Your task to perform on an android device: change notifications settings Image 0: 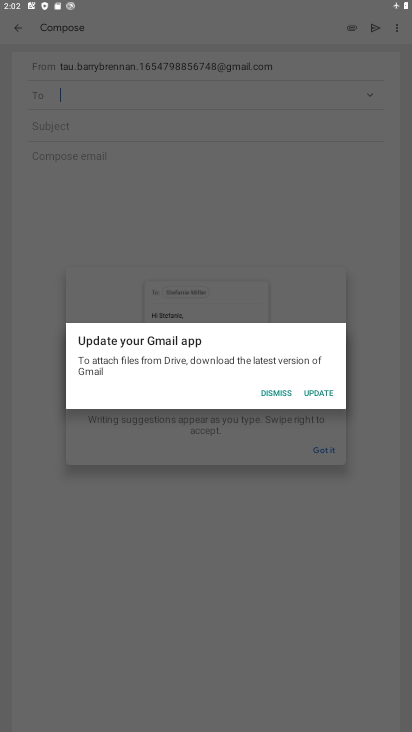
Step 0: press home button
Your task to perform on an android device: change notifications settings Image 1: 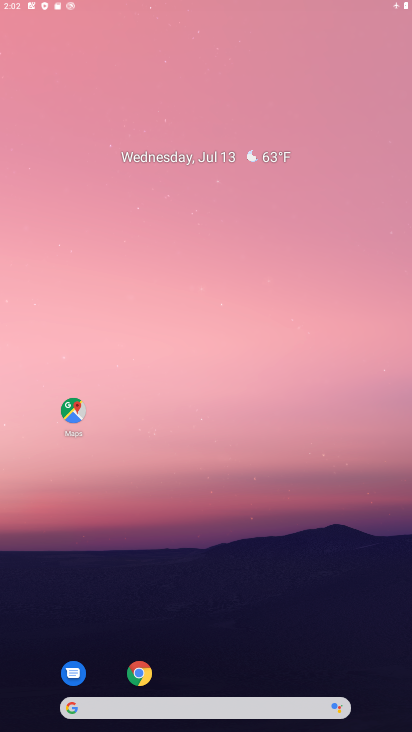
Step 1: drag from (224, 635) to (230, 236)
Your task to perform on an android device: change notifications settings Image 2: 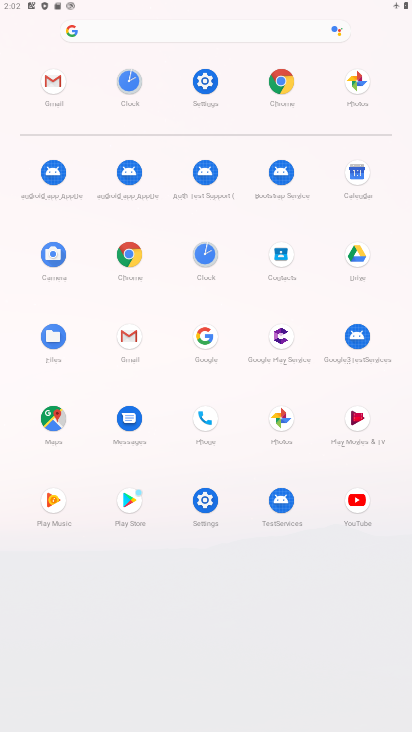
Step 2: click (196, 83)
Your task to perform on an android device: change notifications settings Image 3: 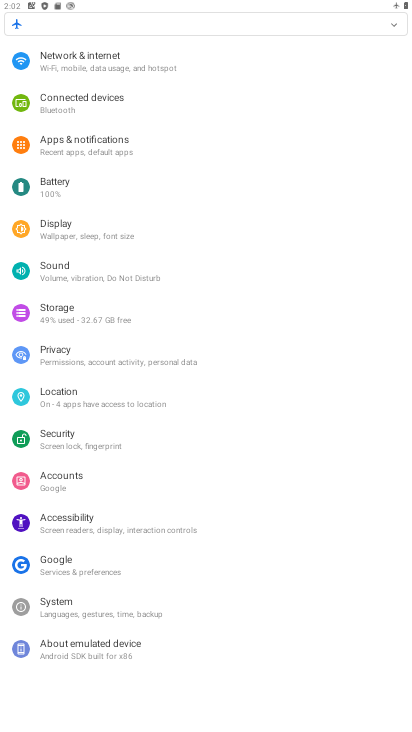
Step 3: click (92, 148)
Your task to perform on an android device: change notifications settings Image 4: 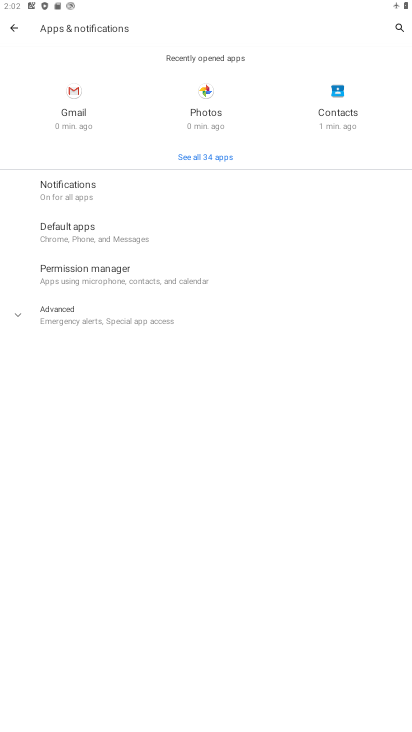
Step 4: click (102, 195)
Your task to perform on an android device: change notifications settings Image 5: 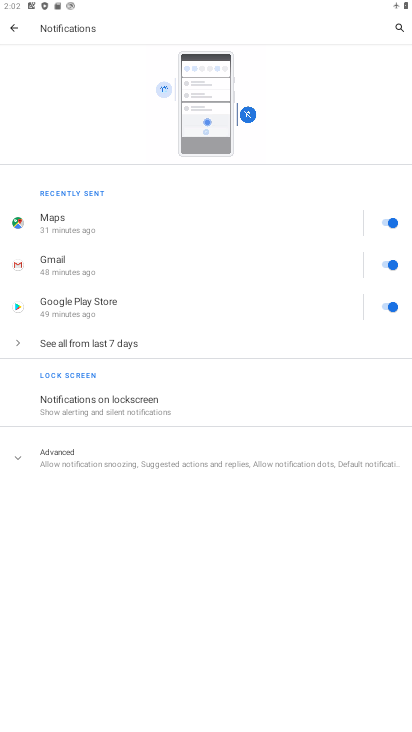
Step 5: drag from (137, 412) to (127, 587)
Your task to perform on an android device: change notifications settings Image 6: 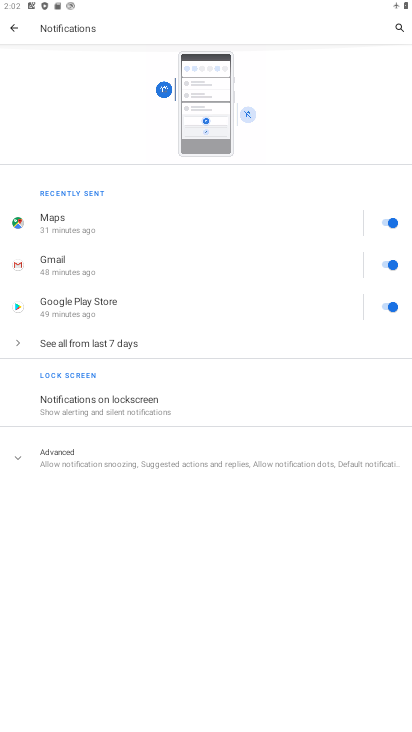
Step 6: click (120, 341)
Your task to perform on an android device: change notifications settings Image 7: 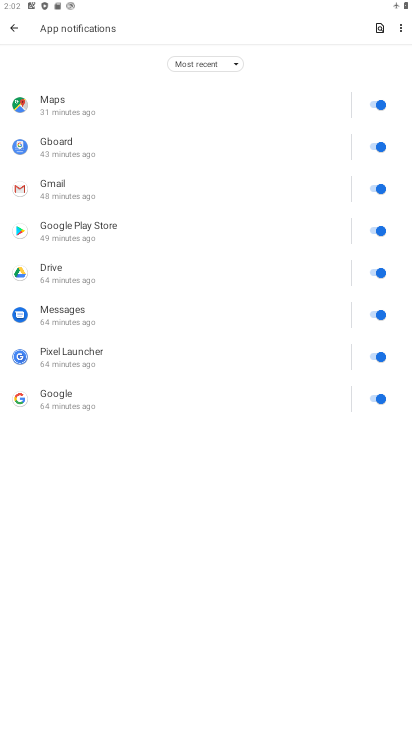
Step 7: click (373, 102)
Your task to perform on an android device: change notifications settings Image 8: 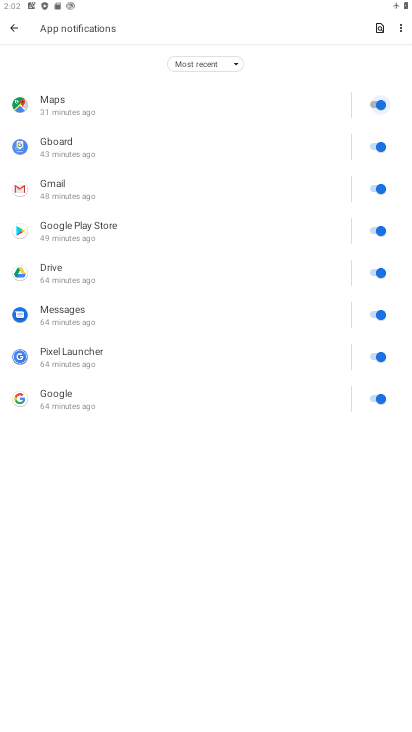
Step 8: click (373, 125)
Your task to perform on an android device: change notifications settings Image 9: 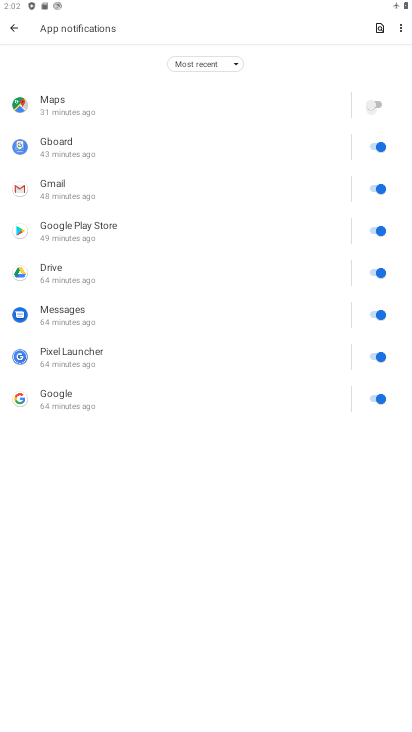
Step 9: drag from (373, 148) to (375, 187)
Your task to perform on an android device: change notifications settings Image 10: 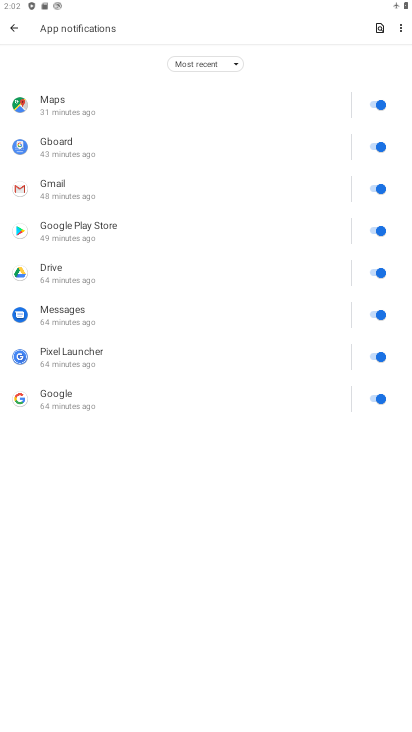
Step 10: click (375, 243)
Your task to perform on an android device: change notifications settings Image 11: 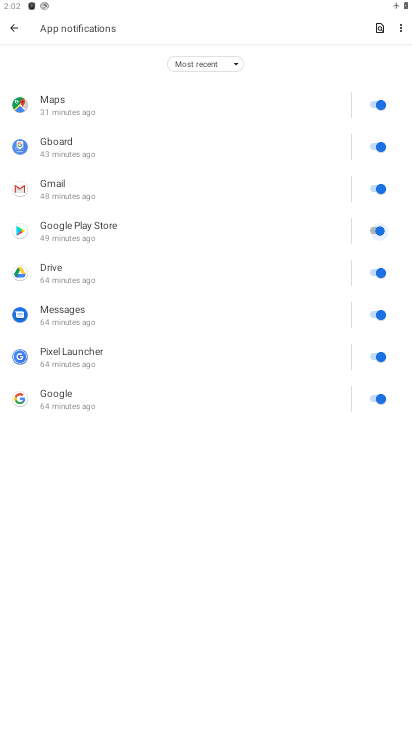
Step 11: click (363, 270)
Your task to perform on an android device: change notifications settings Image 12: 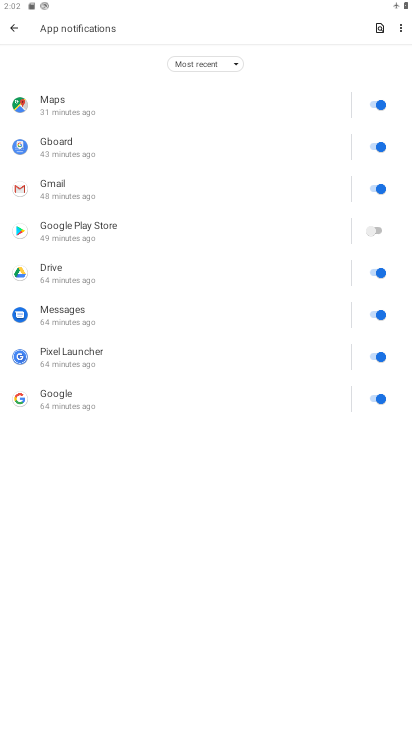
Step 12: click (367, 296)
Your task to perform on an android device: change notifications settings Image 13: 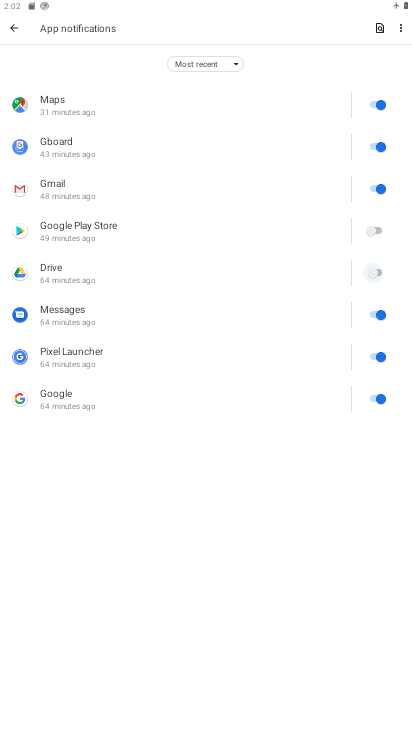
Step 13: click (371, 347)
Your task to perform on an android device: change notifications settings Image 14: 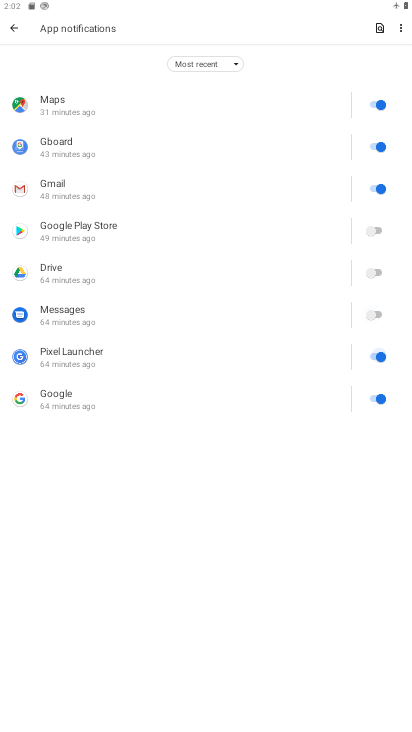
Step 14: click (373, 376)
Your task to perform on an android device: change notifications settings Image 15: 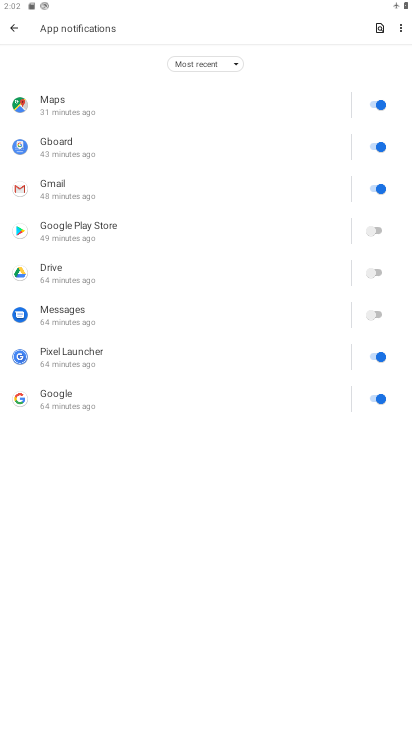
Step 15: click (375, 357)
Your task to perform on an android device: change notifications settings Image 16: 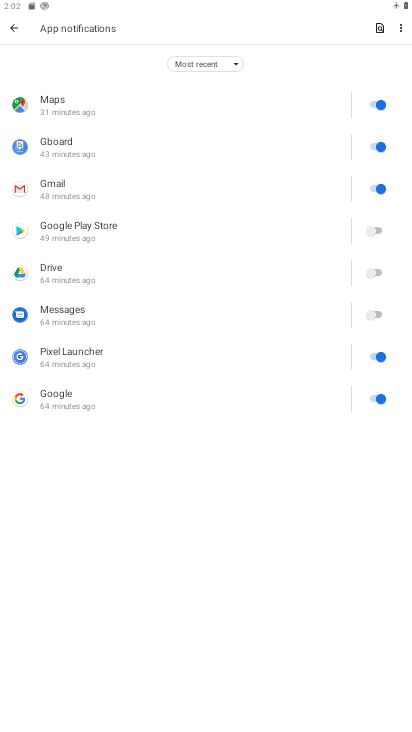
Step 16: click (375, 410)
Your task to perform on an android device: change notifications settings Image 17: 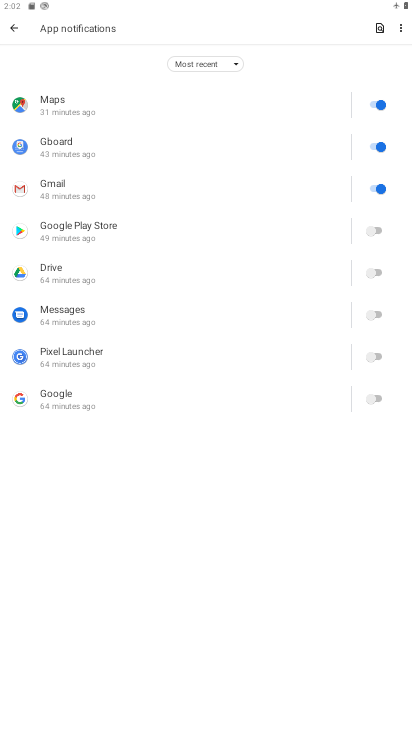
Step 17: click (374, 190)
Your task to perform on an android device: change notifications settings Image 18: 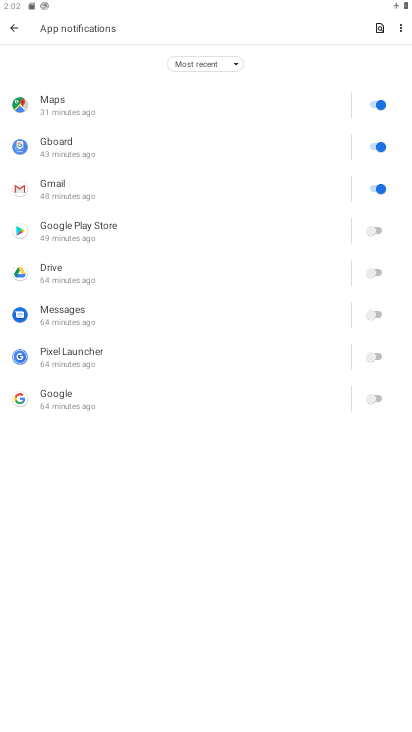
Step 18: click (378, 131)
Your task to perform on an android device: change notifications settings Image 19: 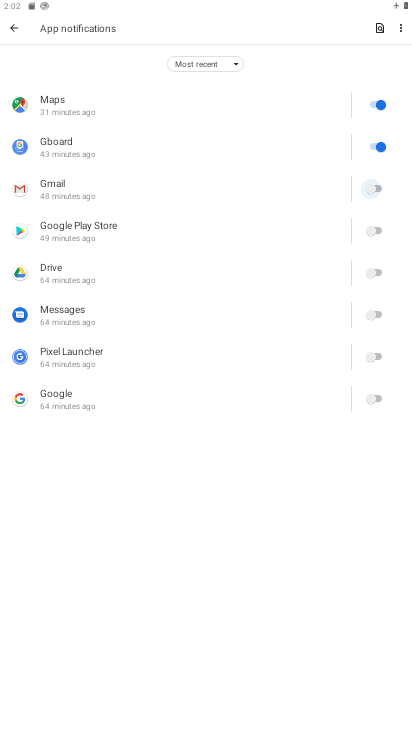
Step 19: click (378, 84)
Your task to perform on an android device: change notifications settings Image 20: 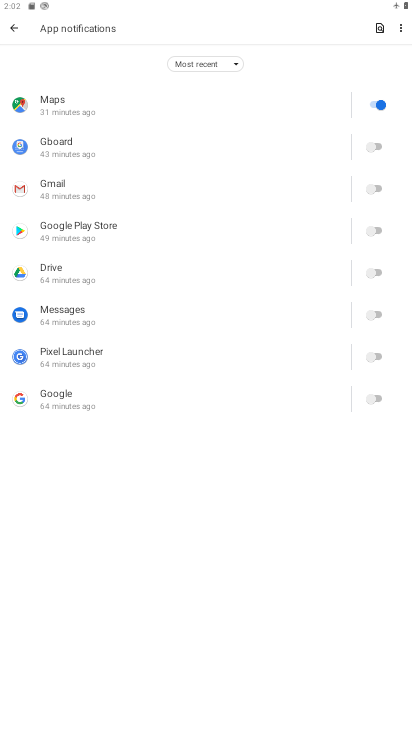
Step 20: click (371, 101)
Your task to perform on an android device: change notifications settings Image 21: 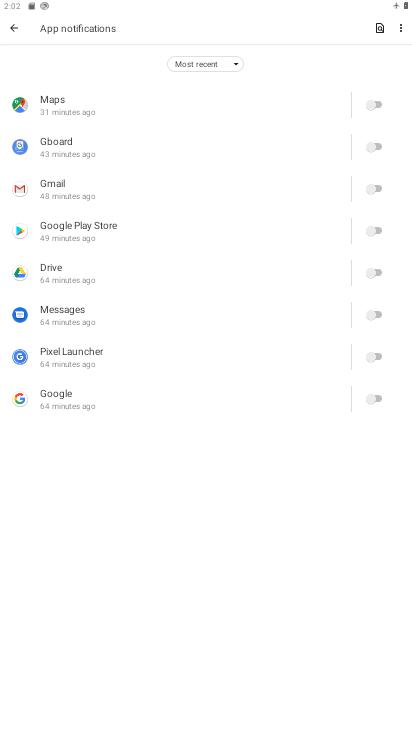
Step 21: task complete